Your task to perform on an android device: Do I have any events today? Image 0: 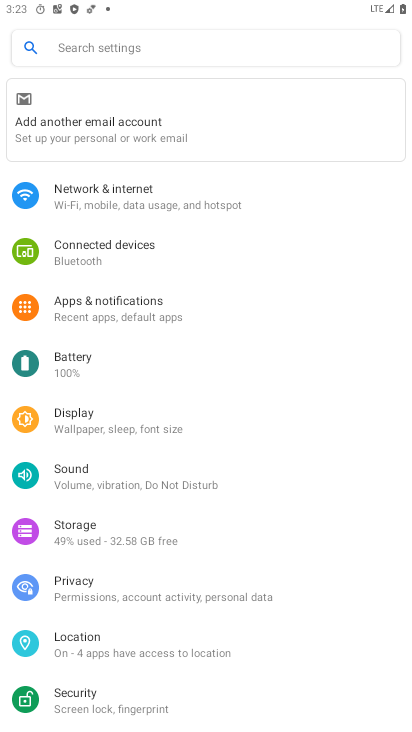
Step 0: press home button
Your task to perform on an android device: Do I have any events today? Image 1: 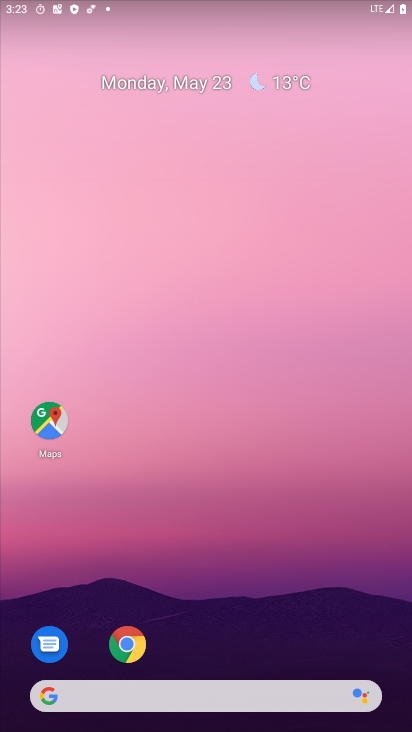
Step 1: drag from (218, 670) to (163, 152)
Your task to perform on an android device: Do I have any events today? Image 2: 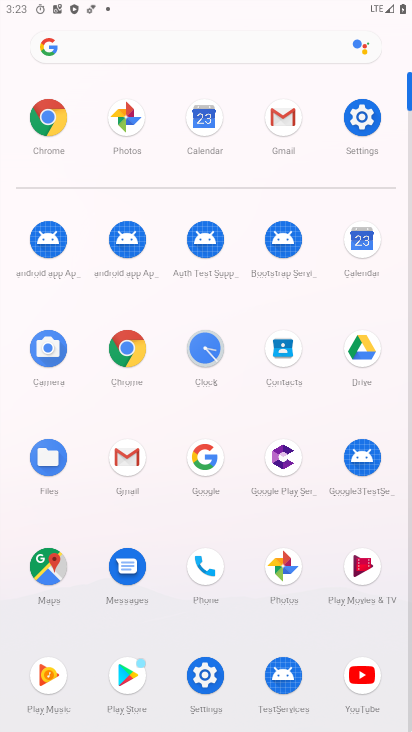
Step 2: click (360, 243)
Your task to perform on an android device: Do I have any events today? Image 3: 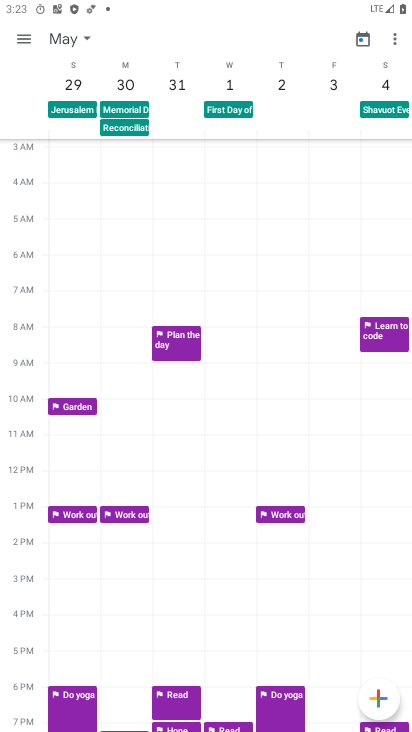
Step 3: click (363, 46)
Your task to perform on an android device: Do I have any events today? Image 4: 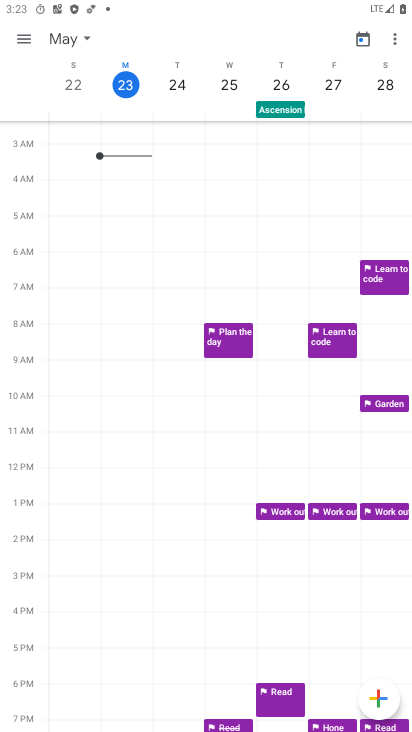
Step 4: click (123, 85)
Your task to perform on an android device: Do I have any events today? Image 5: 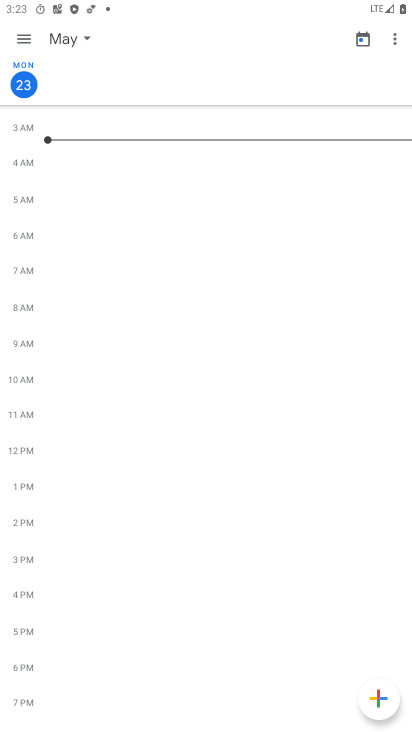
Step 5: task complete